Your task to perform on an android device: Open Android settings Image 0: 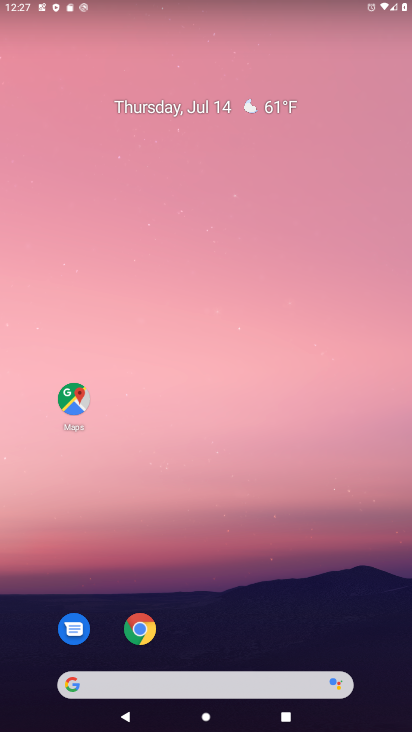
Step 0: drag from (232, 577) to (155, 155)
Your task to perform on an android device: Open Android settings Image 1: 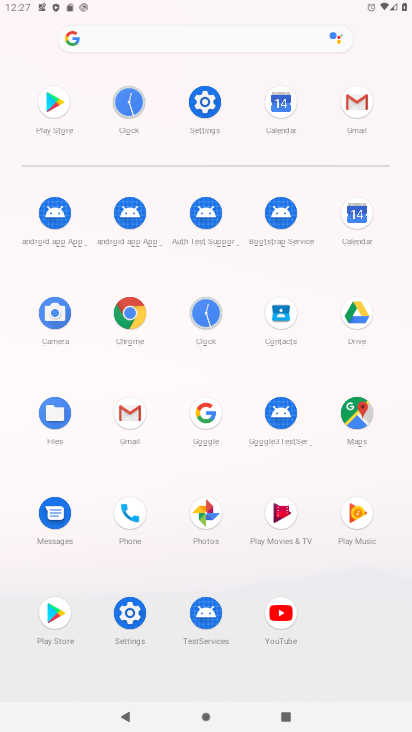
Step 1: click (208, 101)
Your task to perform on an android device: Open Android settings Image 2: 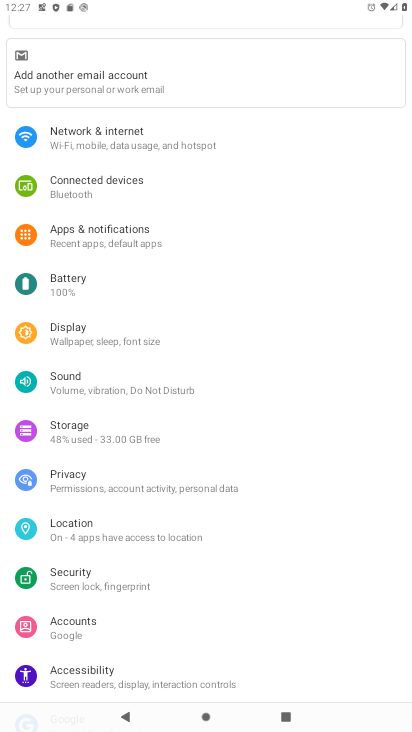
Step 2: task complete